Your task to perform on an android device: Add logitech g903 to the cart on amazon.com Image 0: 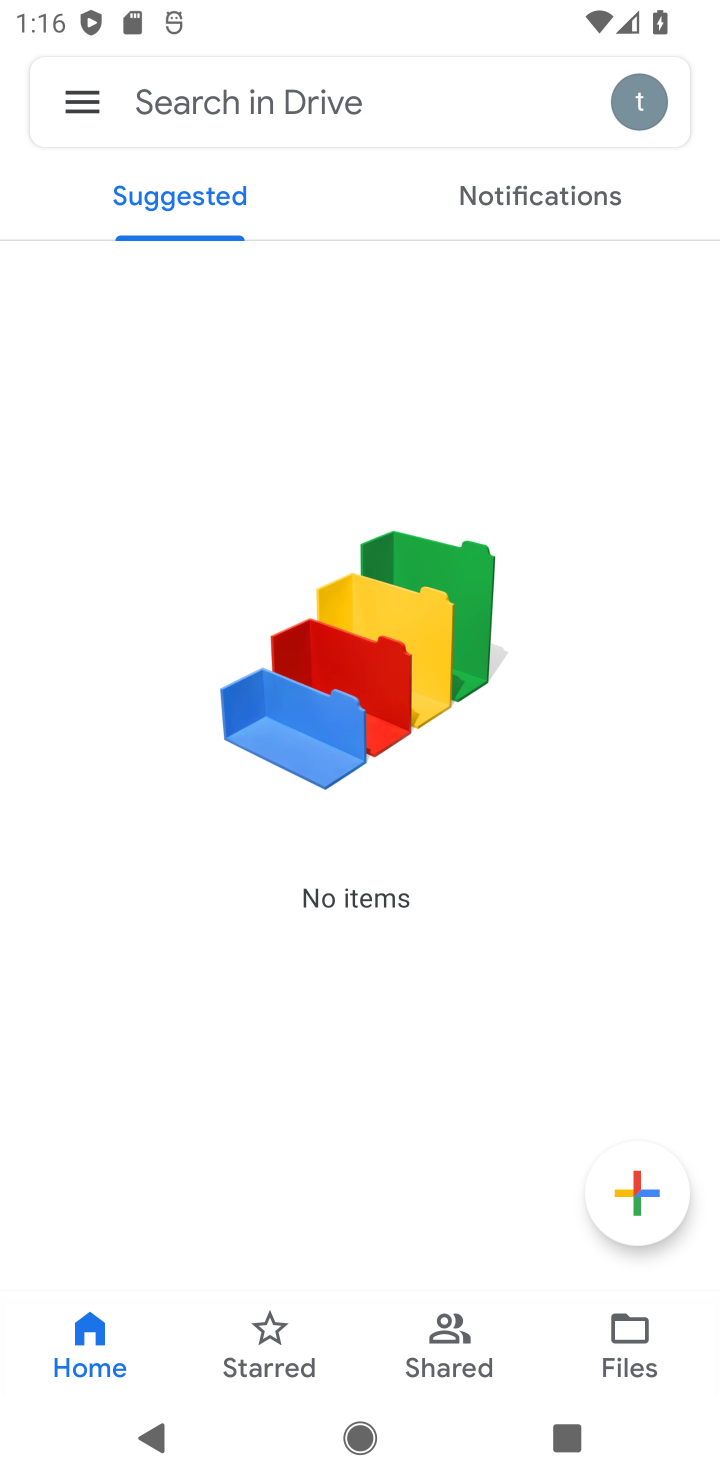
Step 0: press home button
Your task to perform on an android device: Add logitech g903 to the cart on amazon.com Image 1: 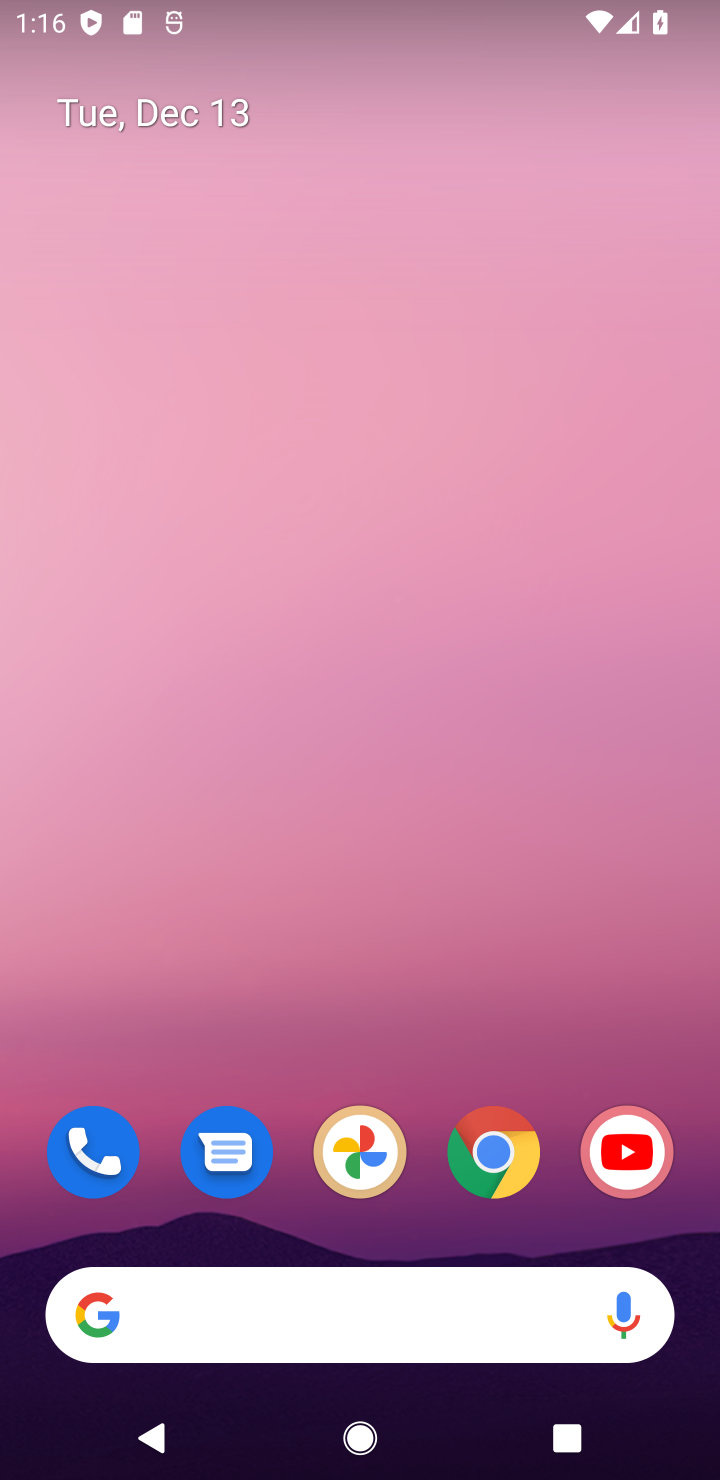
Step 1: drag from (400, 1302) to (400, 383)
Your task to perform on an android device: Add logitech g903 to the cart on amazon.com Image 2: 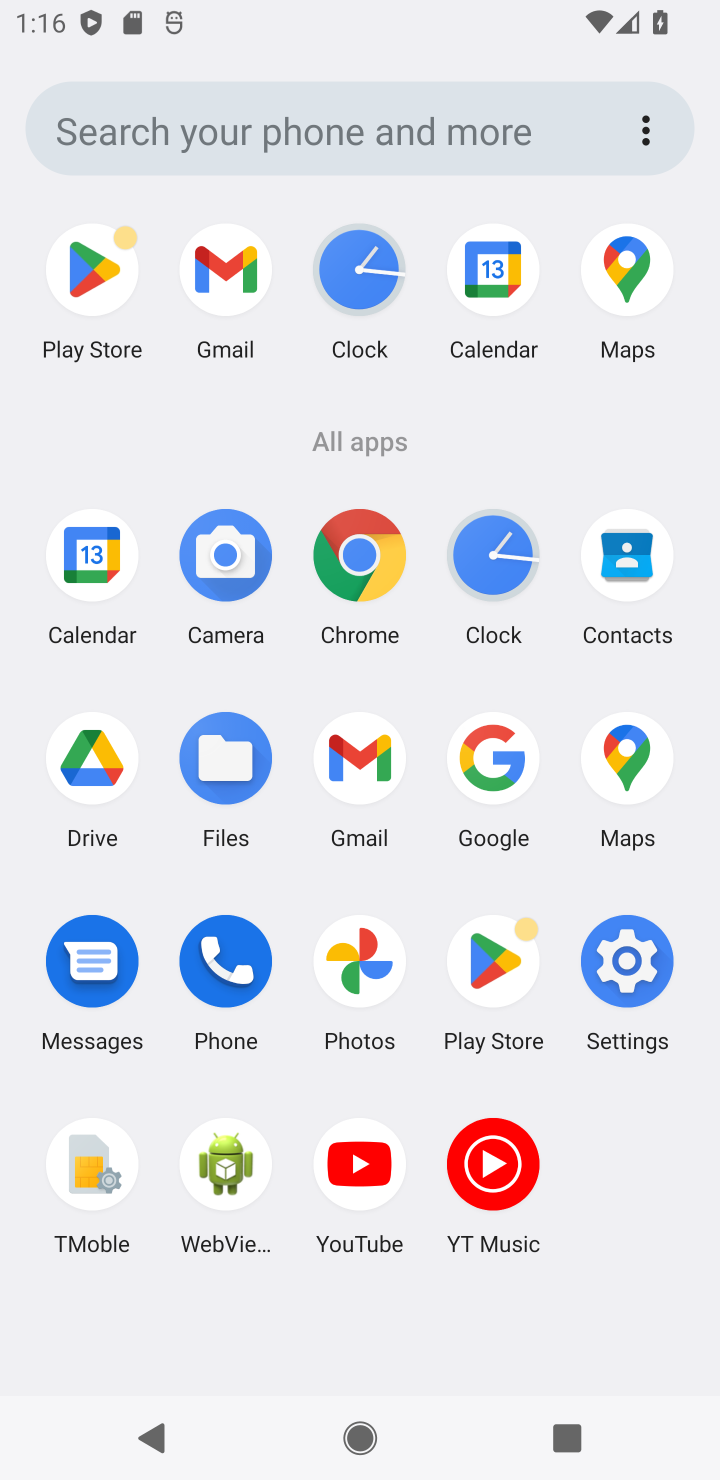
Step 2: click (510, 754)
Your task to perform on an android device: Add logitech g903 to the cart on amazon.com Image 3: 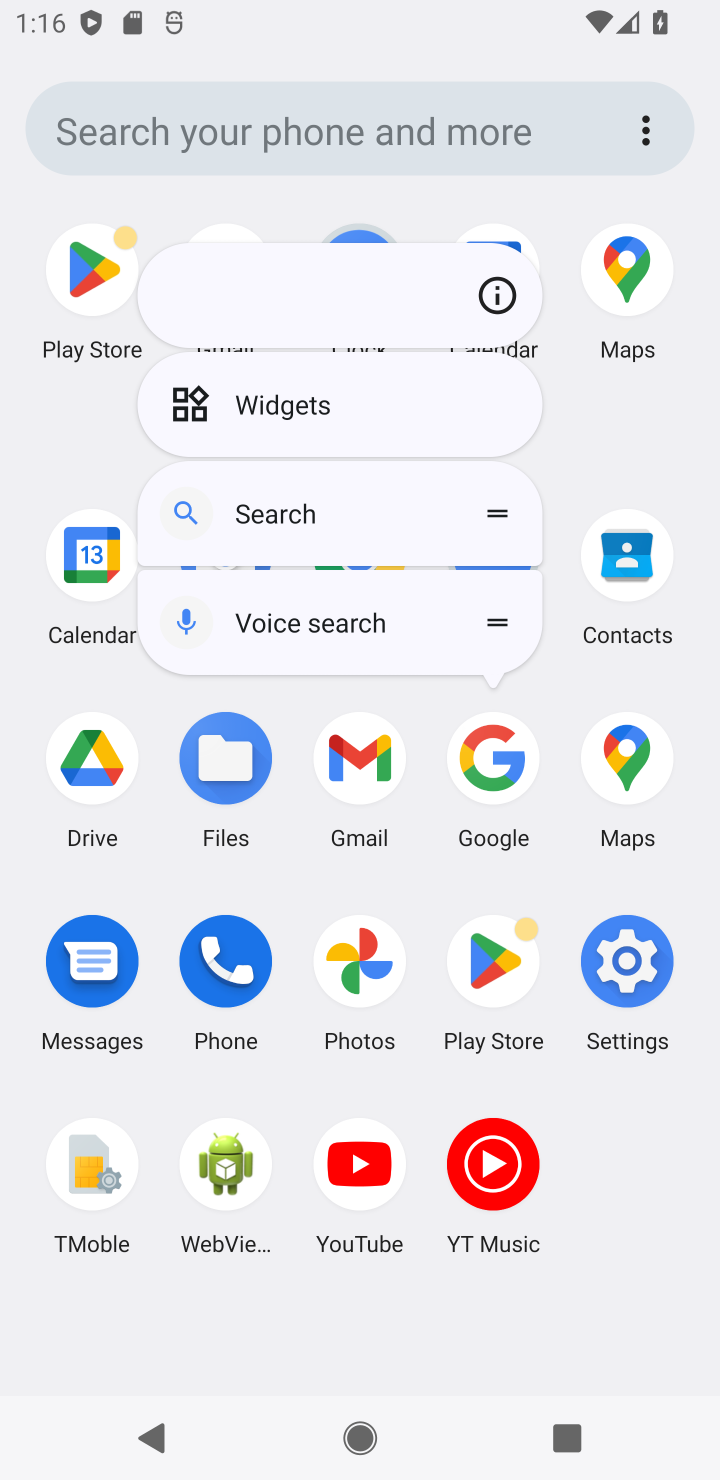
Step 3: click (505, 767)
Your task to perform on an android device: Add logitech g903 to the cart on amazon.com Image 4: 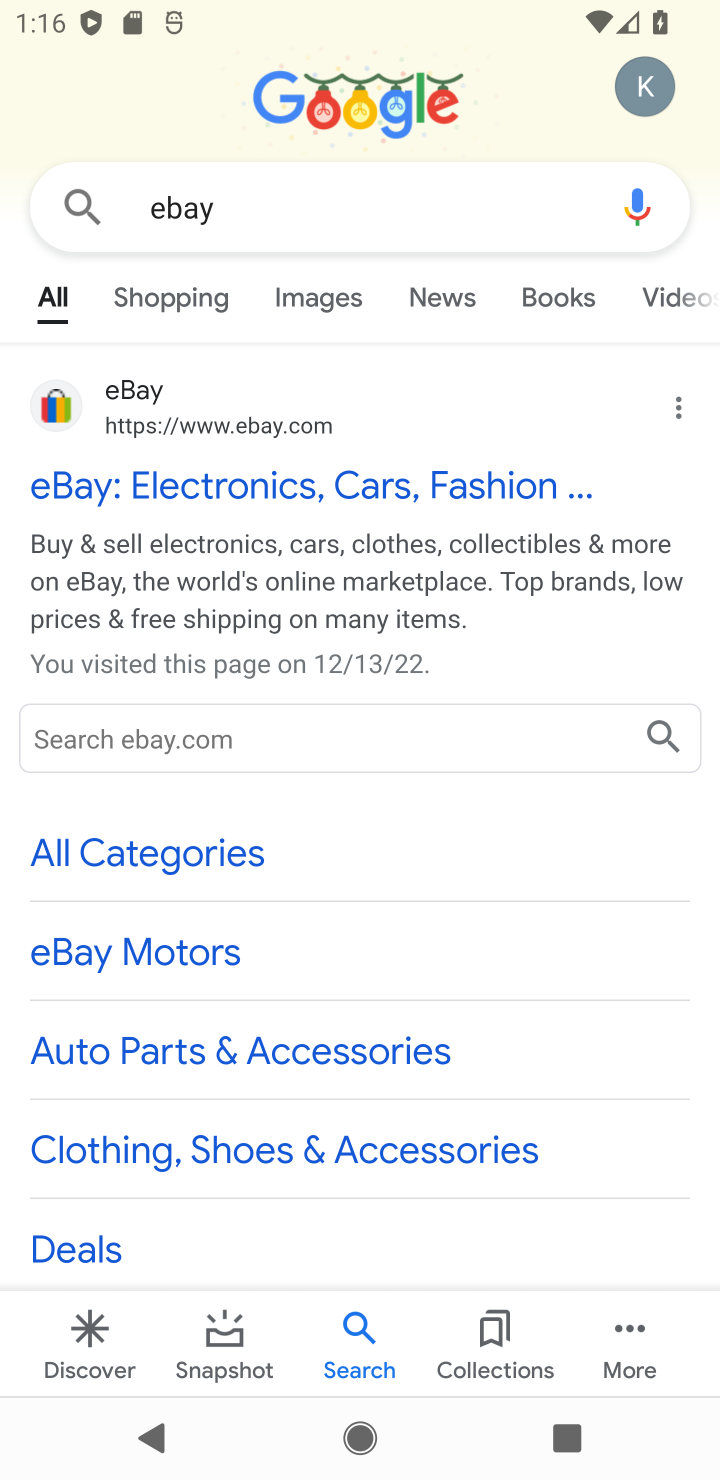
Step 4: click (219, 223)
Your task to perform on an android device: Add logitech g903 to the cart on amazon.com Image 5: 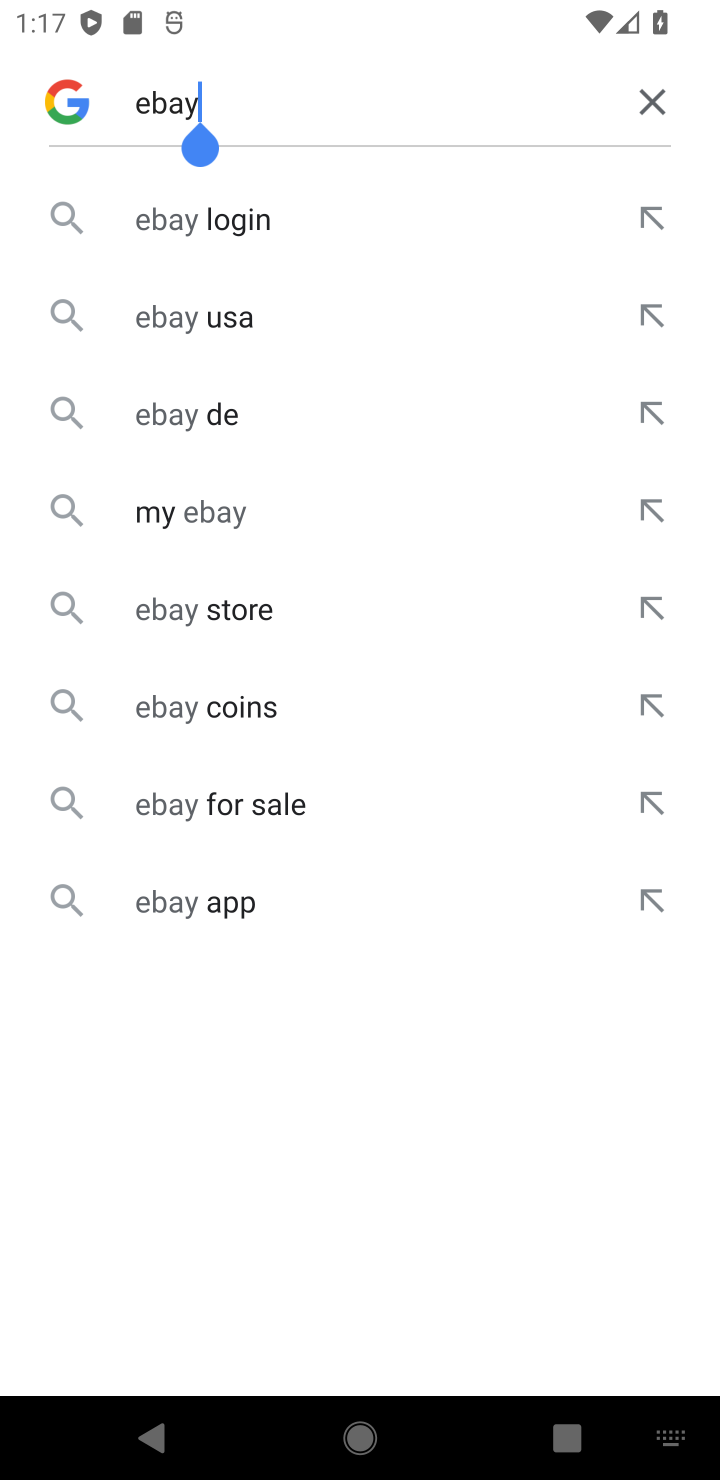
Step 5: click (680, 97)
Your task to perform on an android device: Add logitech g903 to the cart on amazon.com Image 6: 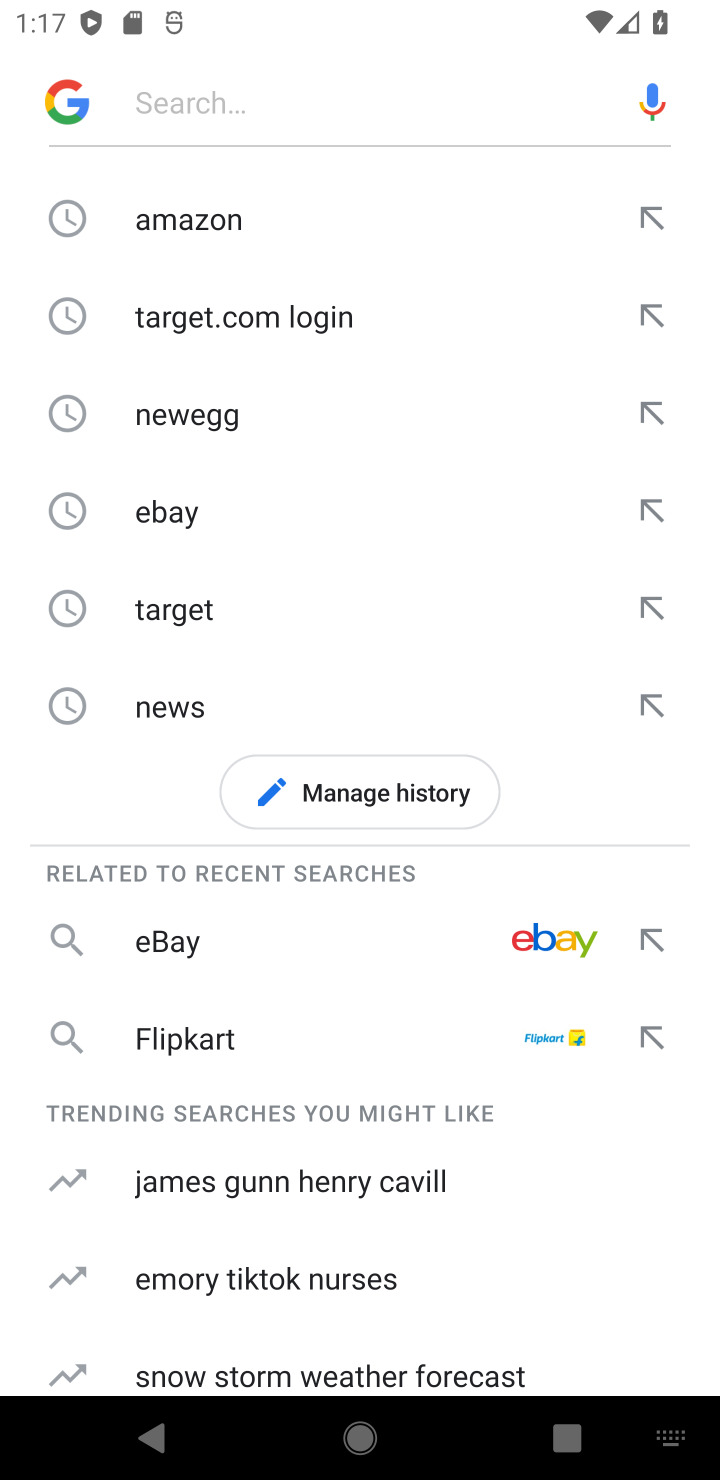
Step 6: click (202, 219)
Your task to perform on an android device: Add logitech g903 to the cart on amazon.com Image 7: 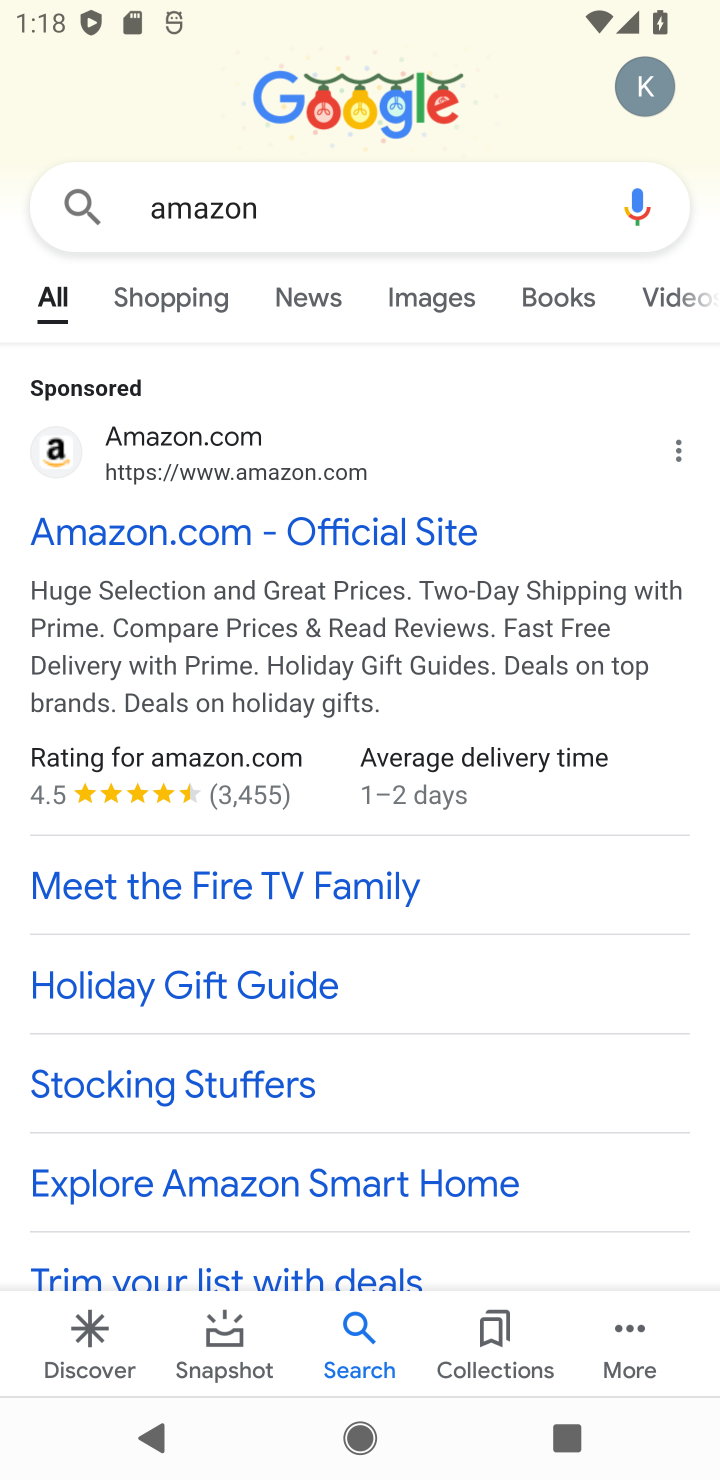
Step 7: click (150, 539)
Your task to perform on an android device: Add logitech g903 to the cart on amazon.com Image 8: 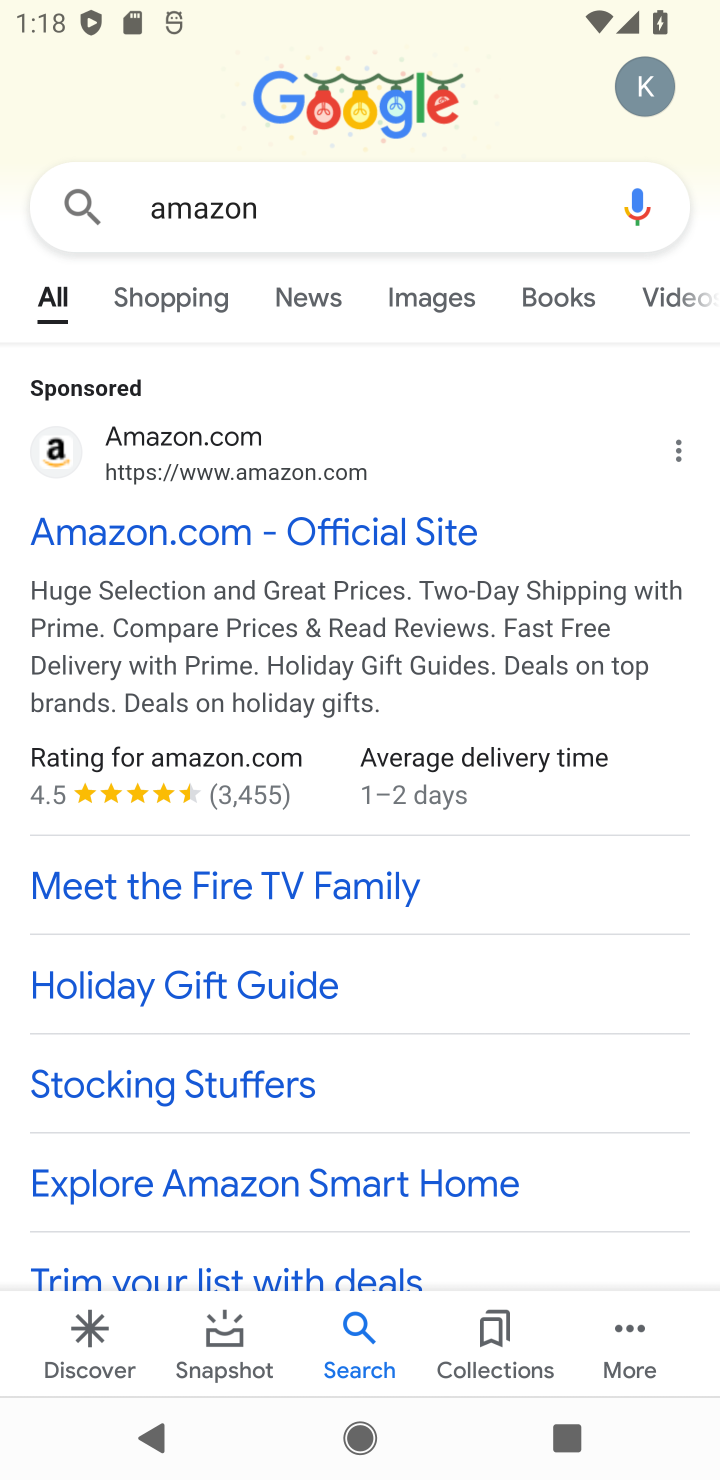
Step 8: click (162, 548)
Your task to perform on an android device: Add logitech g903 to the cart on amazon.com Image 9: 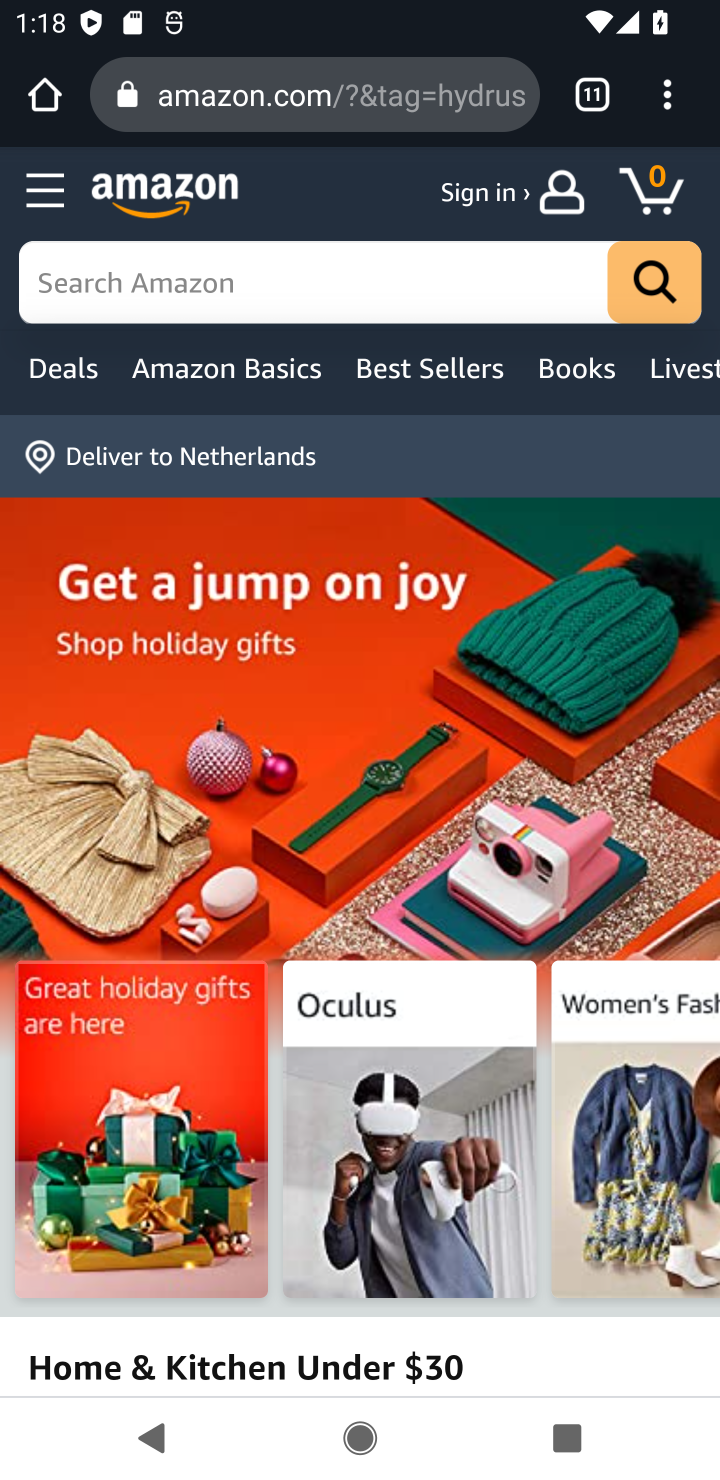
Step 9: click (144, 287)
Your task to perform on an android device: Add logitech g903 to the cart on amazon.com Image 10: 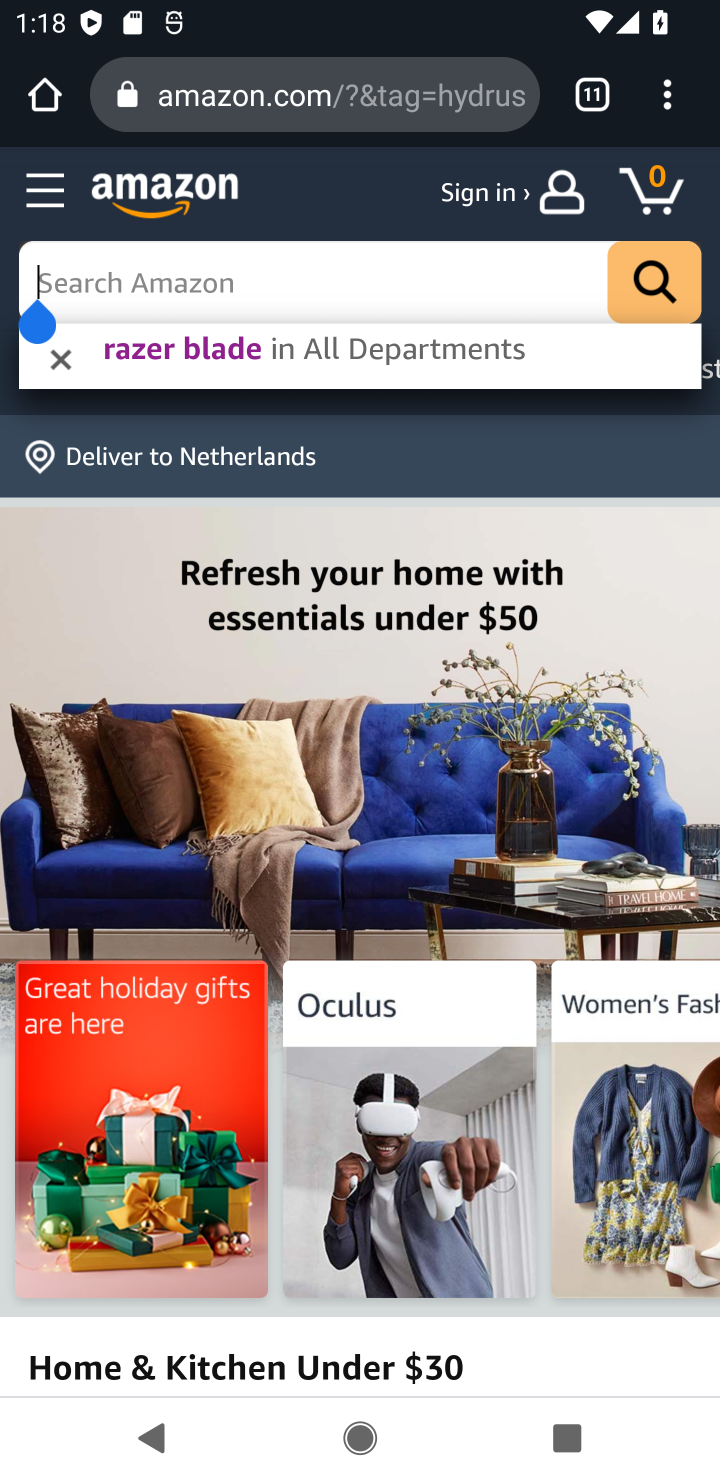
Step 10: type "logitech g903"
Your task to perform on an android device: Add logitech g903 to the cart on amazon.com Image 11: 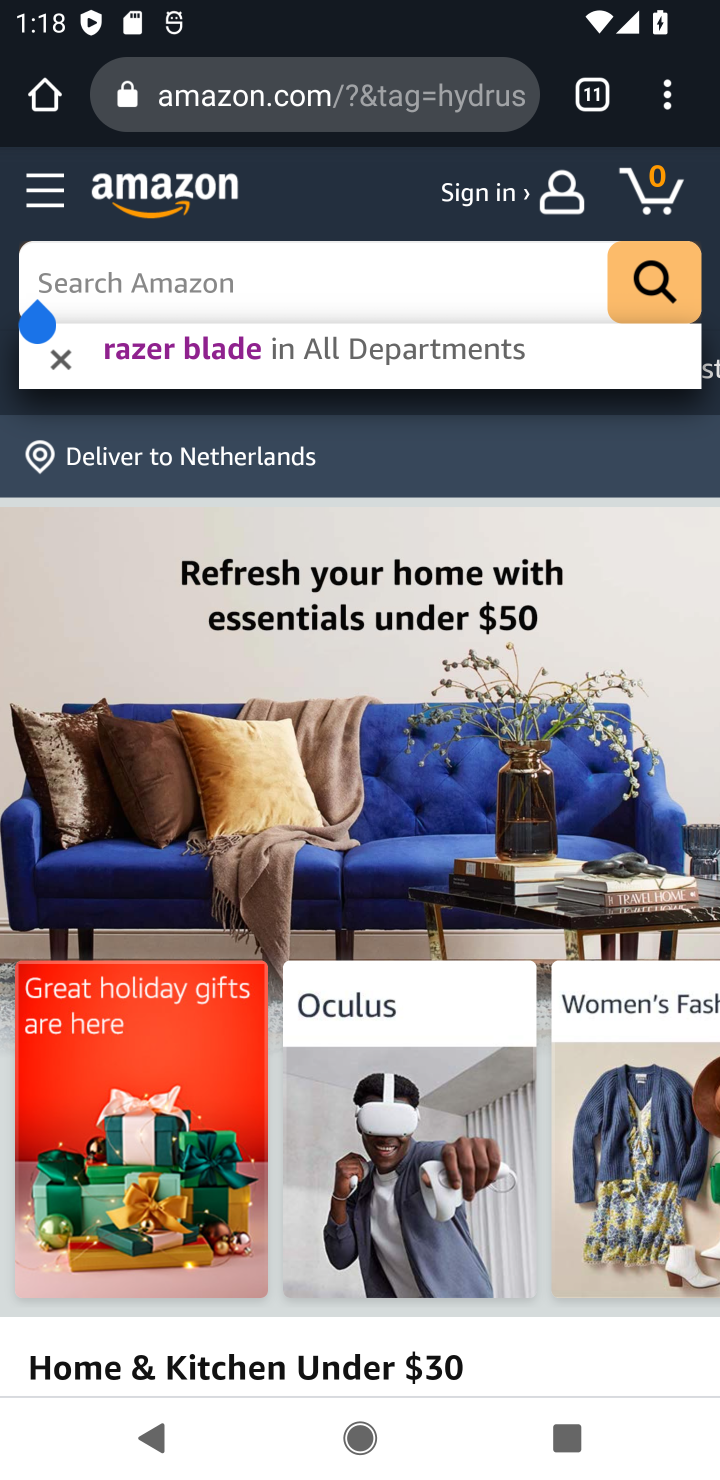
Step 11: click (645, 279)
Your task to perform on an android device: Add logitech g903 to the cart on amazon.com Image 12: 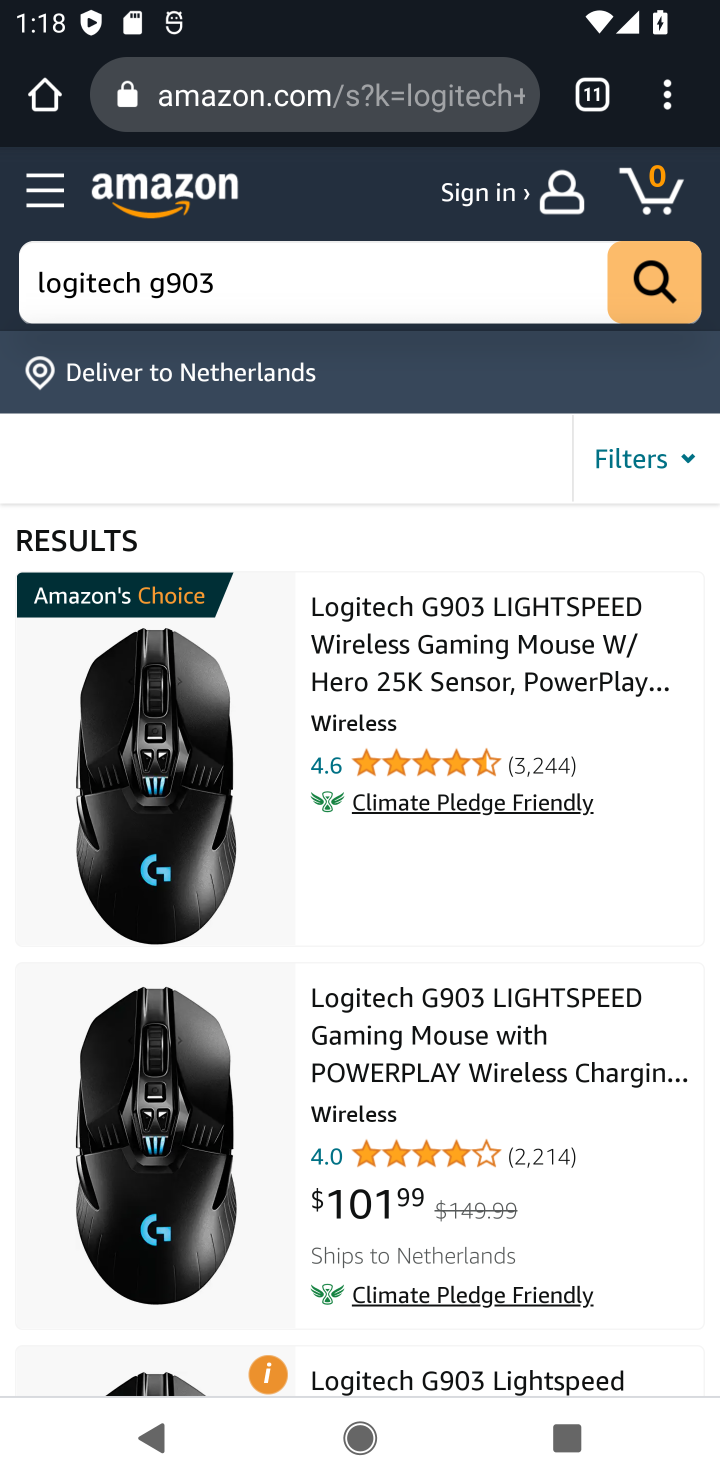
Step 12: click (351, 613)
Your task to perform on an android device: Add logitech g903 to the cart on amazon.com Image 13: 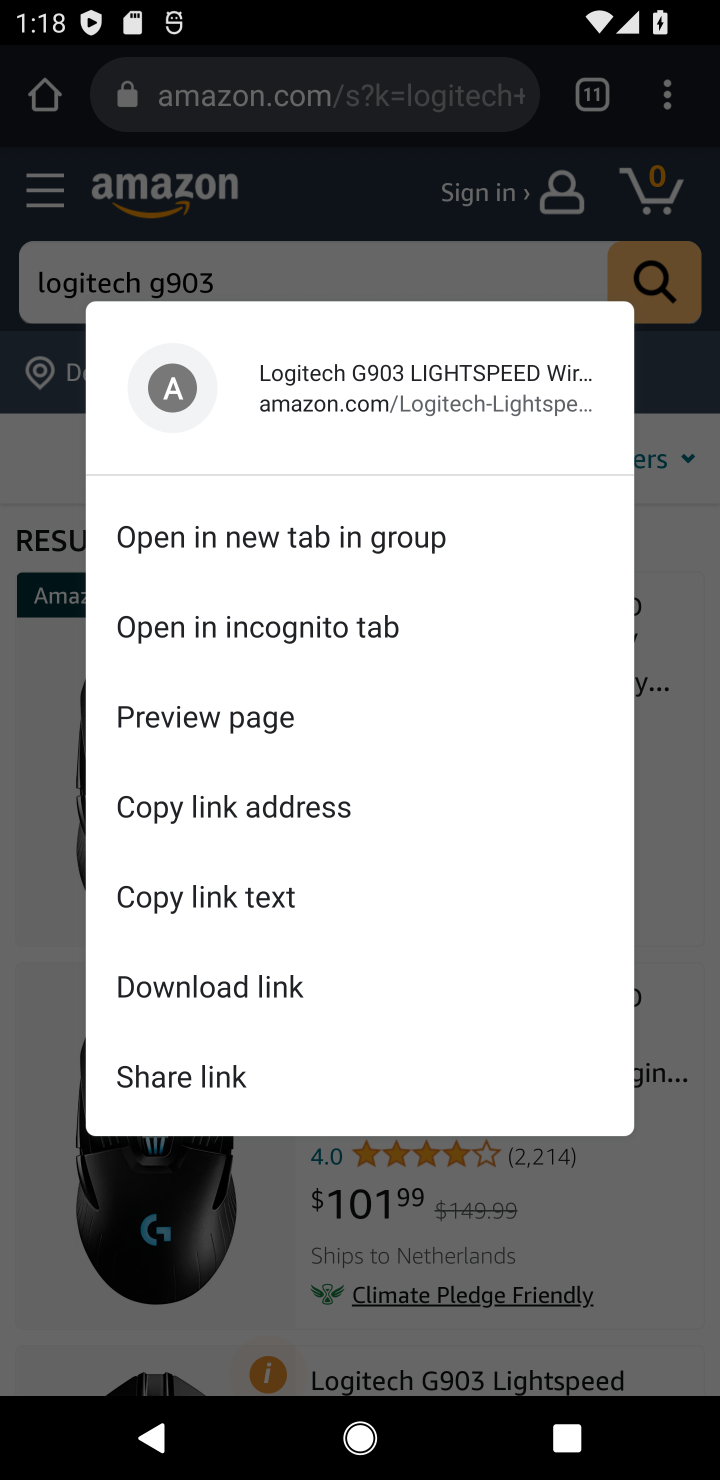
Step 13: click (651, 569)
Your task to perform on an android device: Add logitech g903 to the cart on amazon.com Image 14: 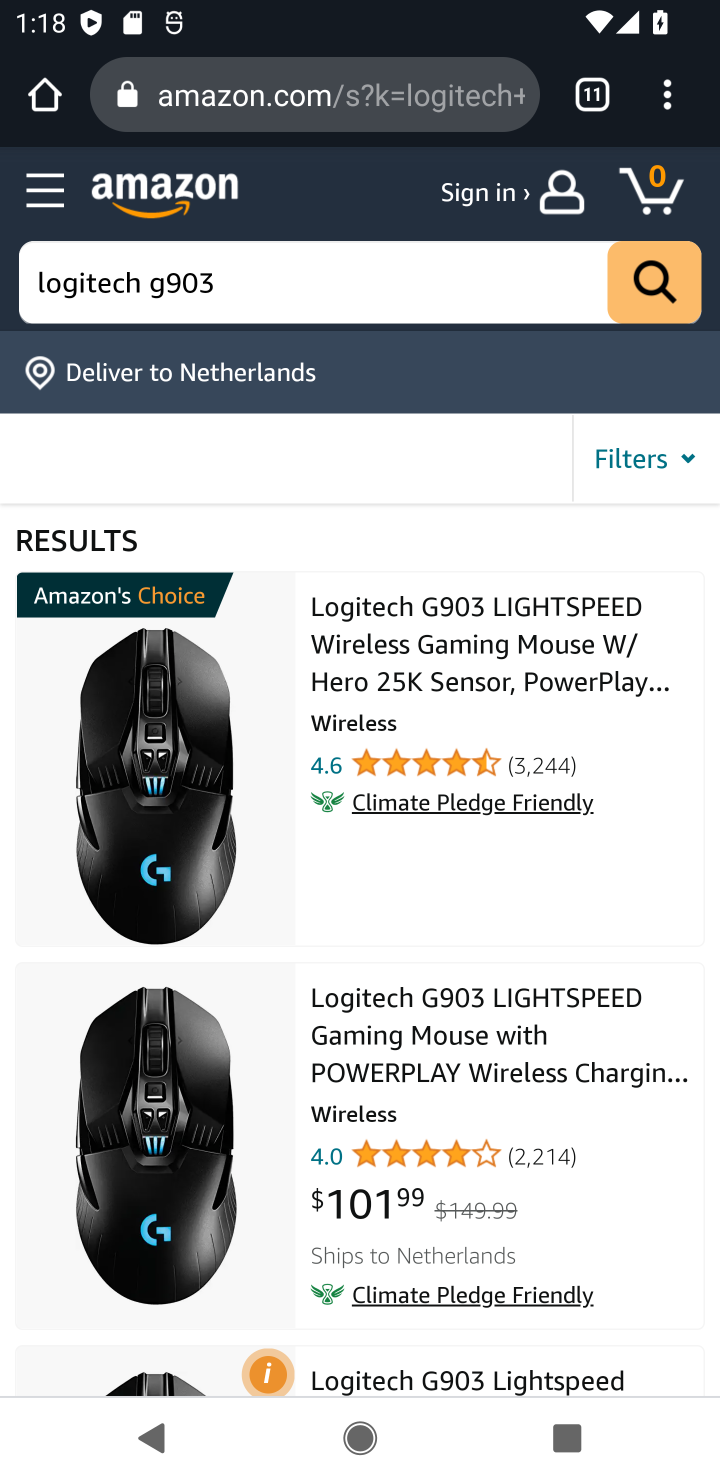
Step 14: click (406, 624)
Your task to perform on an android device: Add logitech g903 to the cart on amazon.com Image 15: 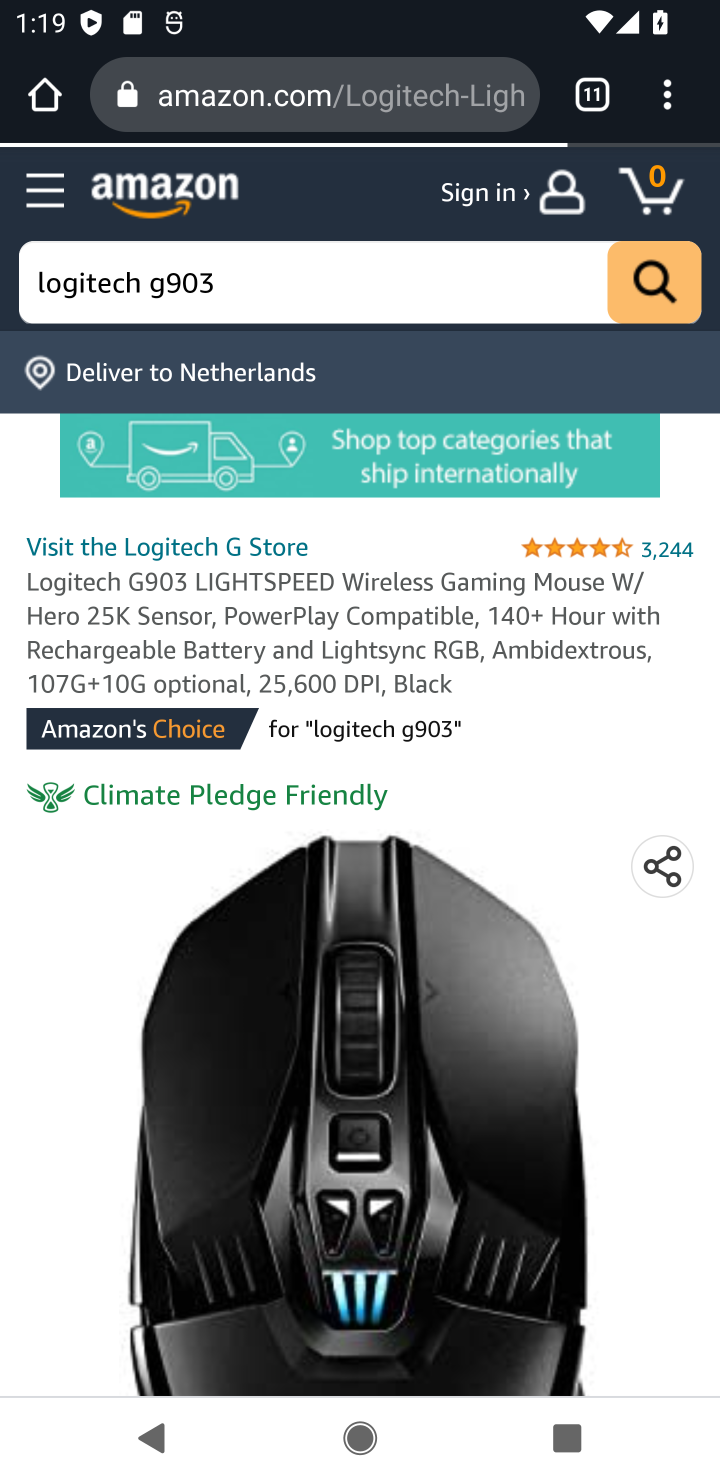
Step 15: drag from (604, 1144) to (582, 552)
Your task to perform on an android device: Add logitech g903 to the cart on amazon.com Image 16: 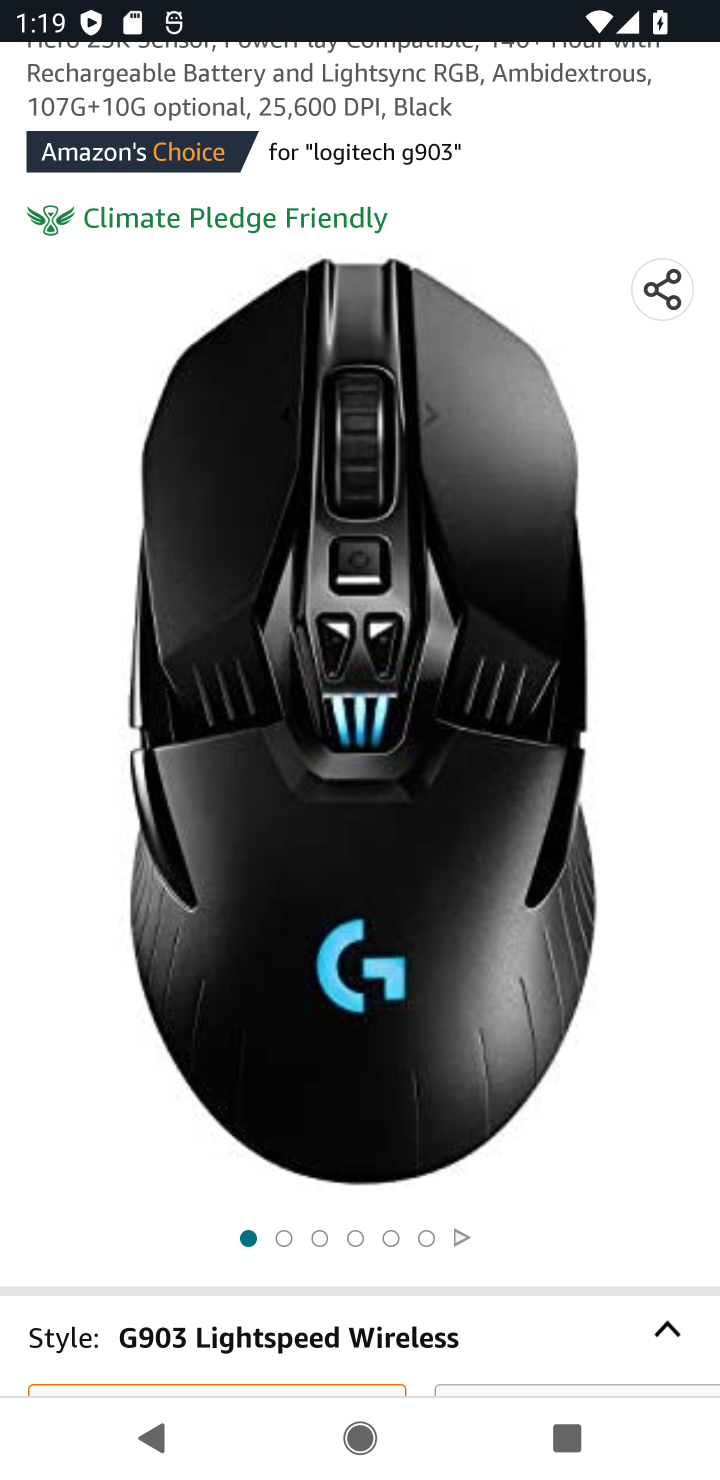
Step 16: drag from (640, 1086) to (640, 561)
Your task to perform on an android device: Add logitech g903 to the cart on amazon.com Image 17: 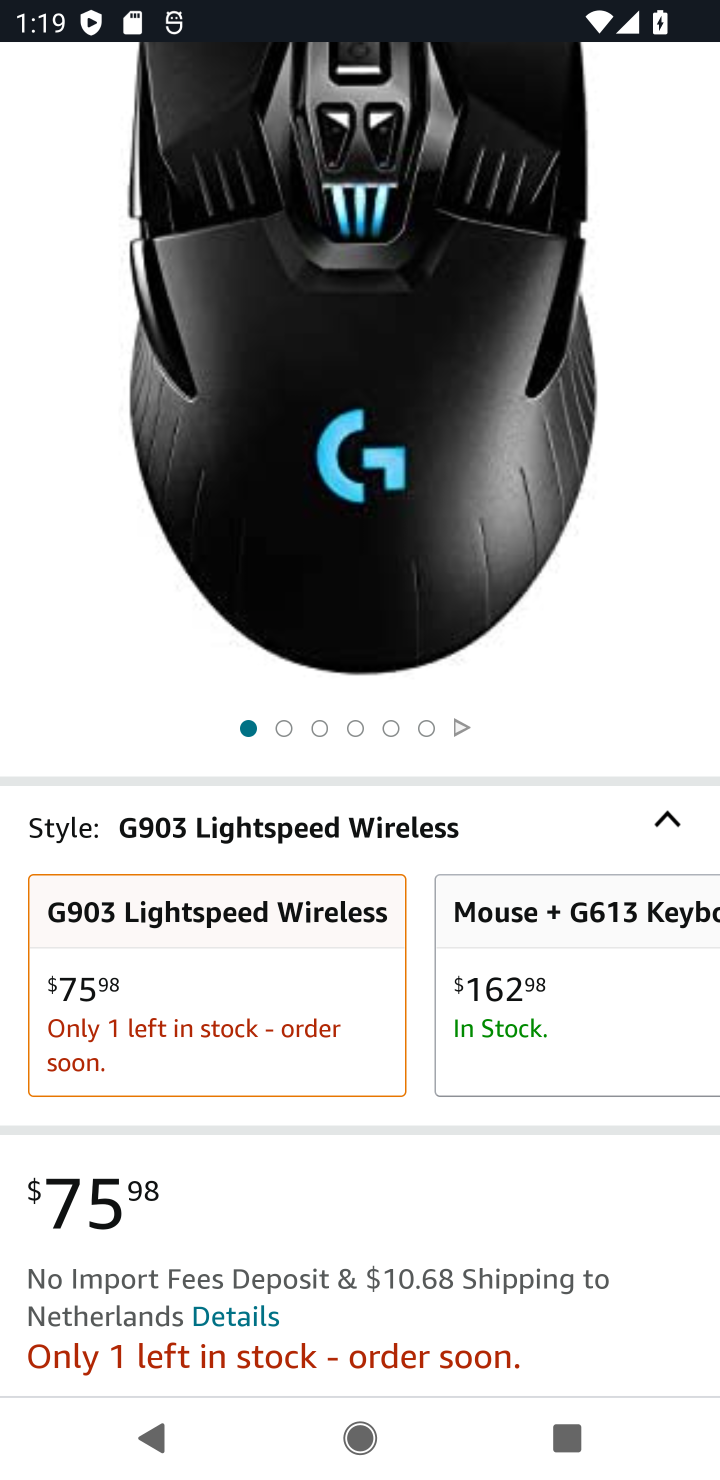
Step 17: drag from (617, 796) to (610, 391)
Your task to perform on an android device: Add logitech g903 to the cart on amazon.com Image 18: 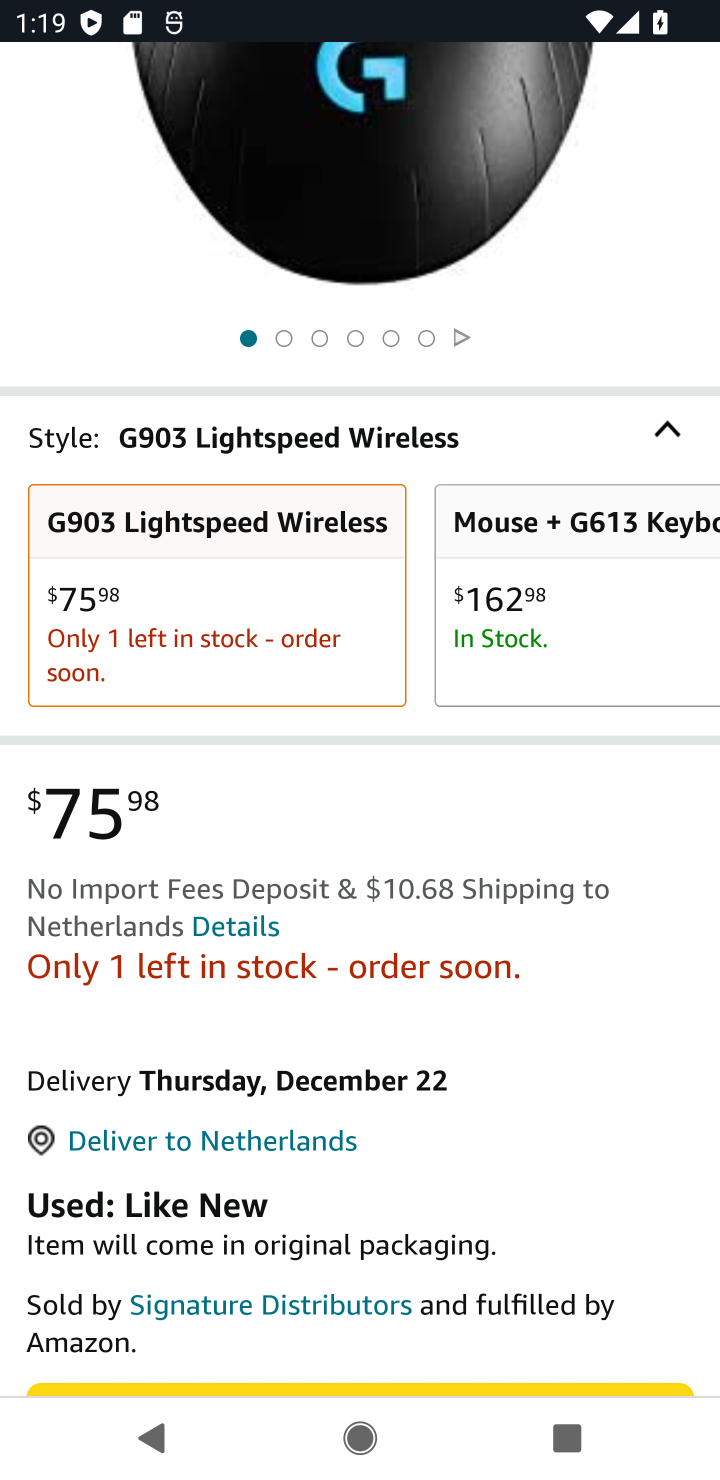
Step 18: drag from (554, 1090) to (568, 326)
Your task to perform on an android device: Add logitech g903 to the cart on amazon.com Image 19: 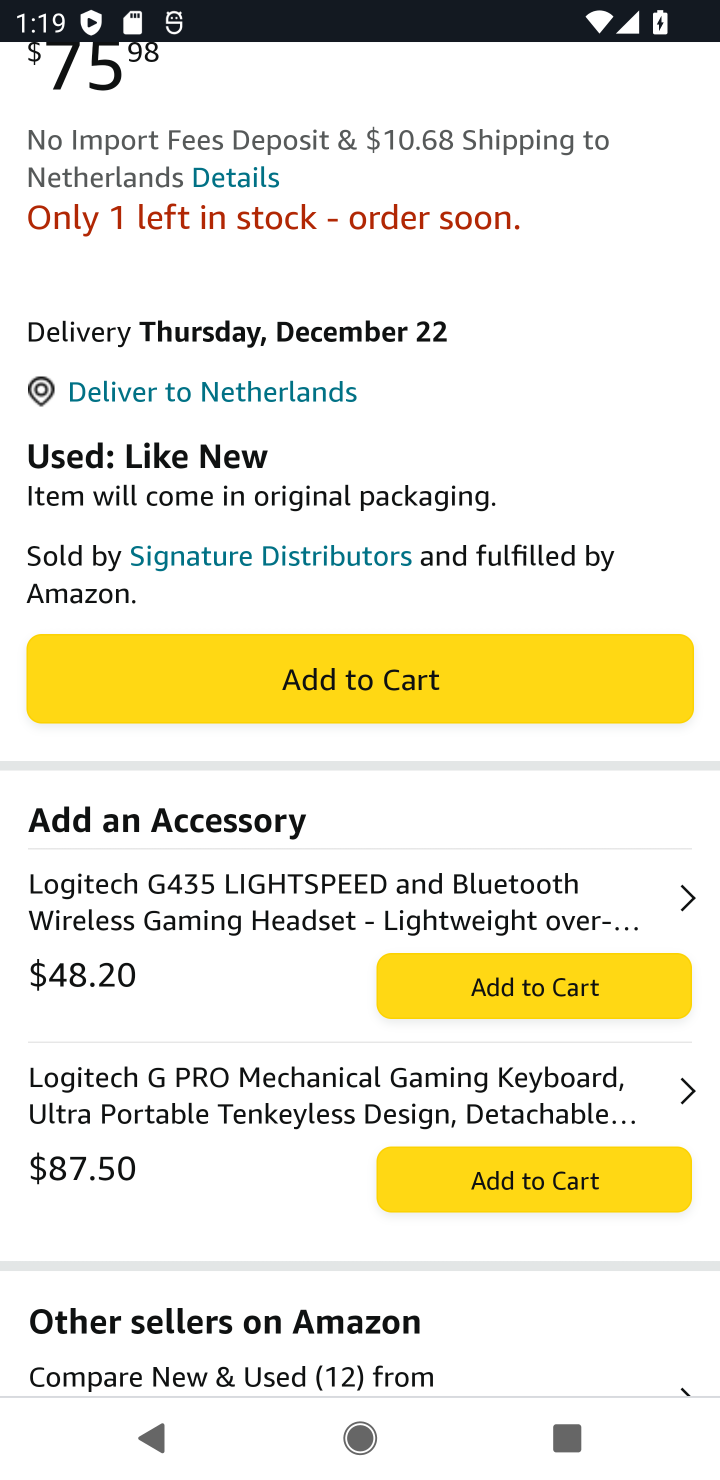
Step 19: click (351, 680)
Your task to perform on an android device: Add logitech g903 to the cart on amazon.com Image 20: 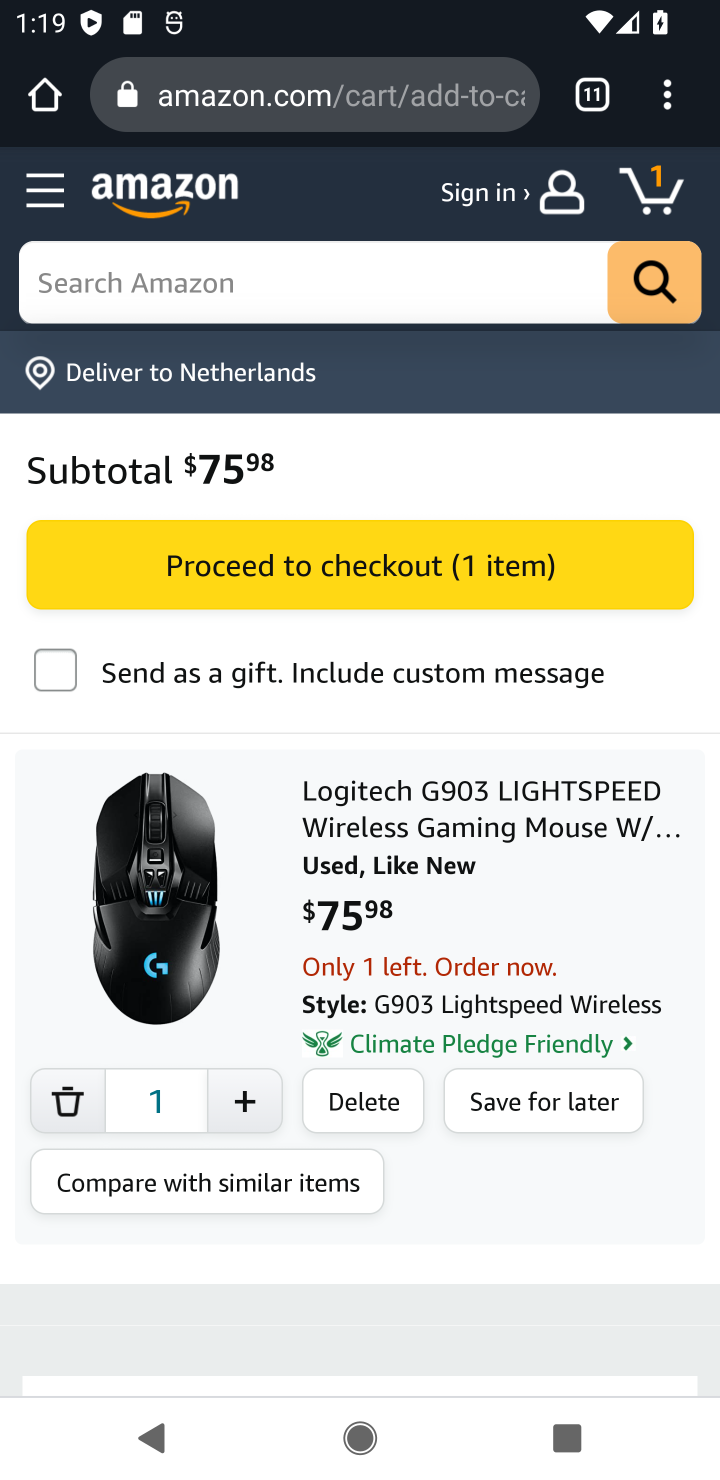
Step 20: click (313, 561)
Your task to perform on an android device: Add logitech g903 to the cart on amazon.com Image 21: 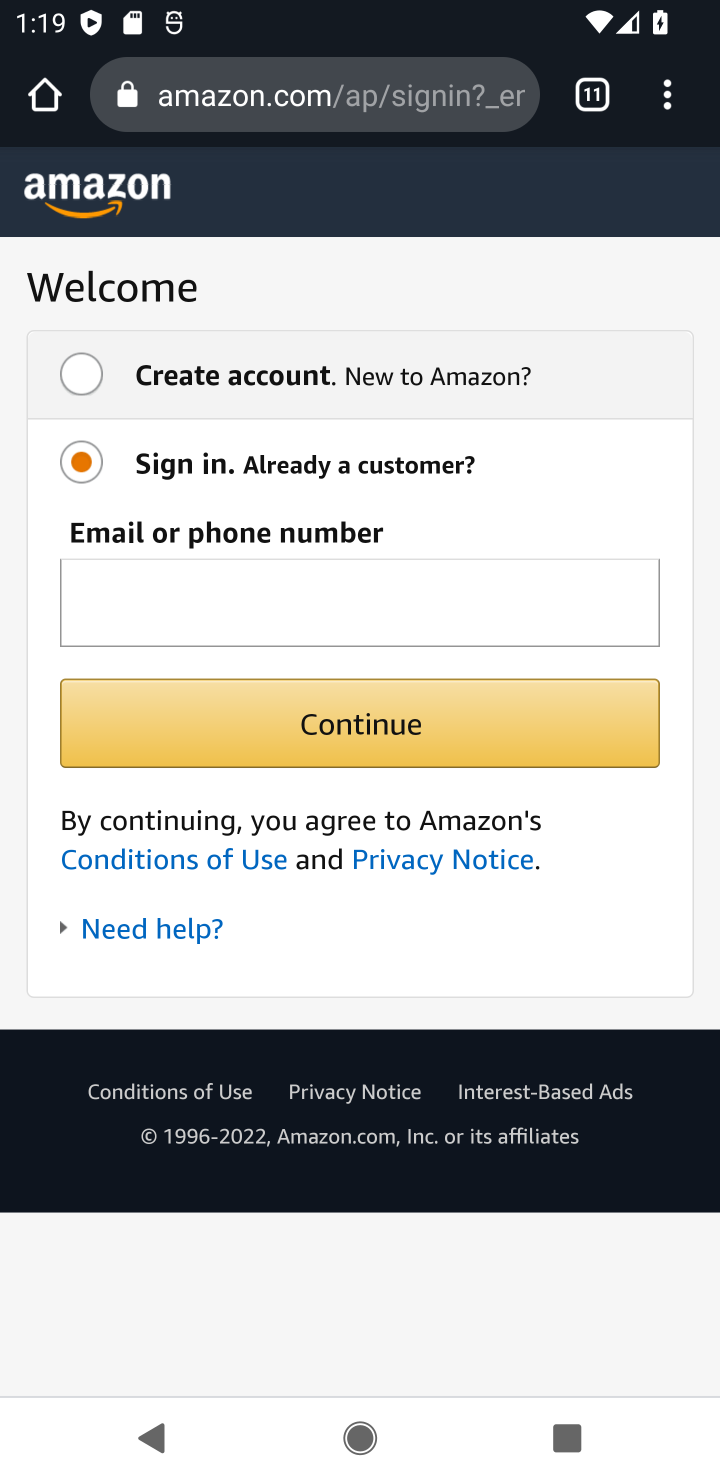
Step 21: task complete